Your task to perform on an android device: turn on javascript in the chrome app Image 0: 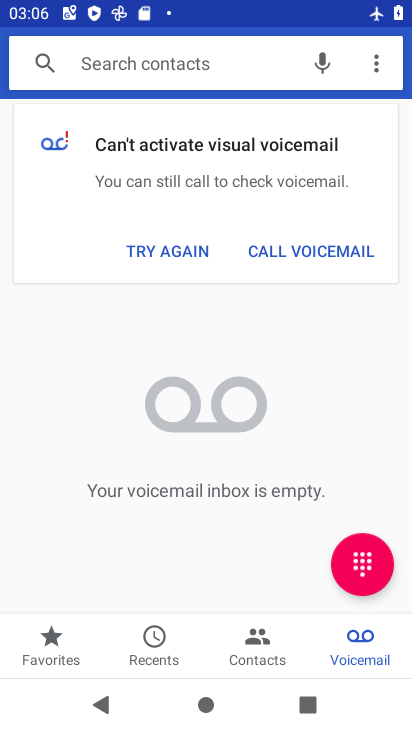
Step 0: drag from (192, 545) to (298, 301)
Your task to perform on an android device: turn on javascript in the chrome app Image 1: 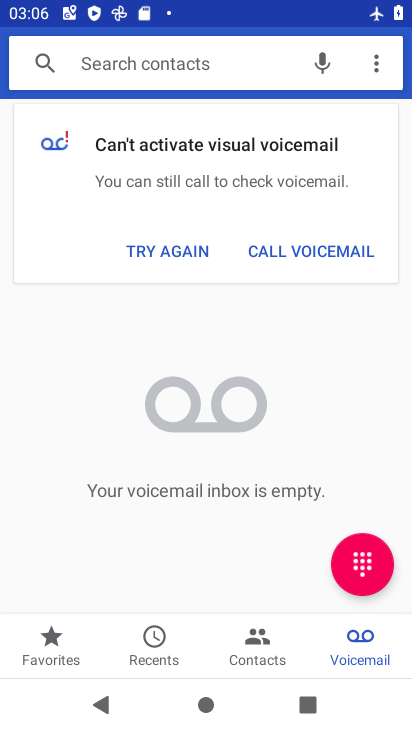
Step 1: press home button
Your task to perform on an android device: turn on javascript in the chrome app Image 2: 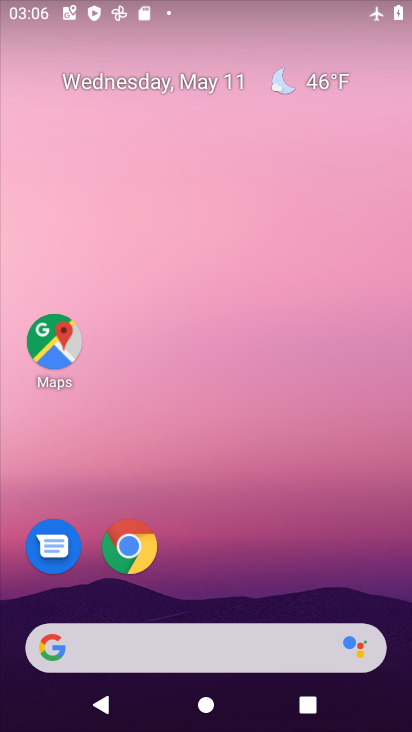
Step 2: drag from (192, 560) to (286, 153)
Your task to perform on an android device: turn on javascript in the chrome app Image 3: 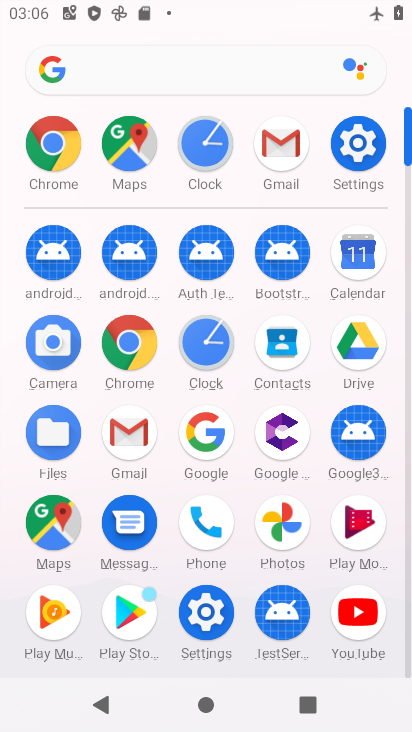
Step 3: click (129, 337)
Your task to perform on an android device: turn on javascript in the chrome app Image 4: 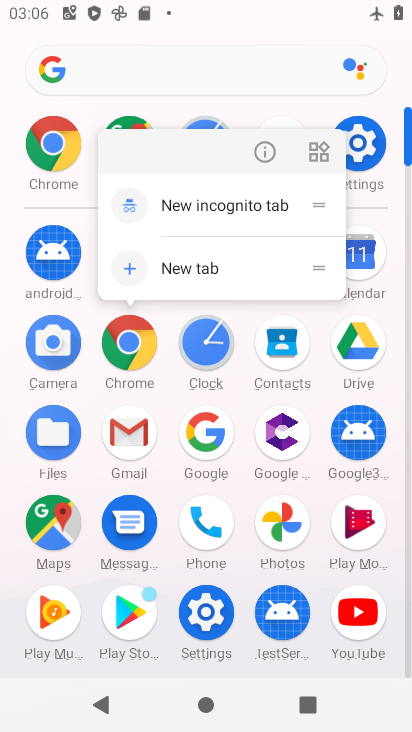
Step 4: click (244, 152)
Your task to perform on an android device: turn on javascript in the chrome app Image 5: 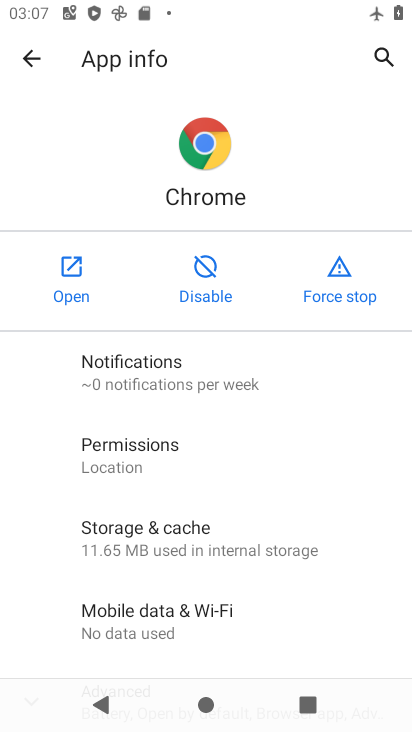
Step 5: click (70, 266)
Your task to perform on an android device: turn on javascript in the chrome app Image 6: 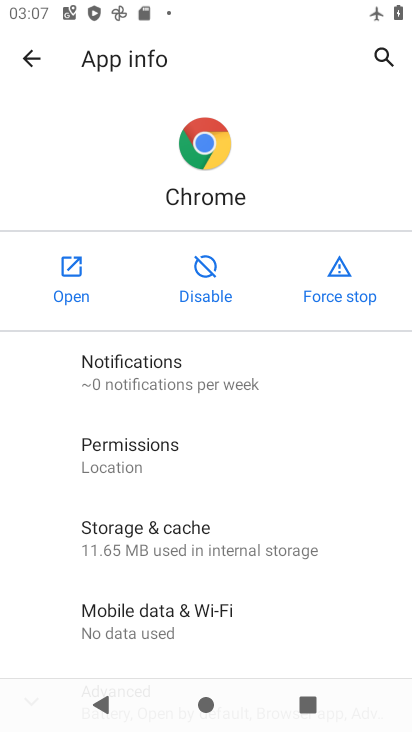
Step 6: click (70, 266)
Your task to perform on an android device: turn on javascript in the chrome app Image 7: 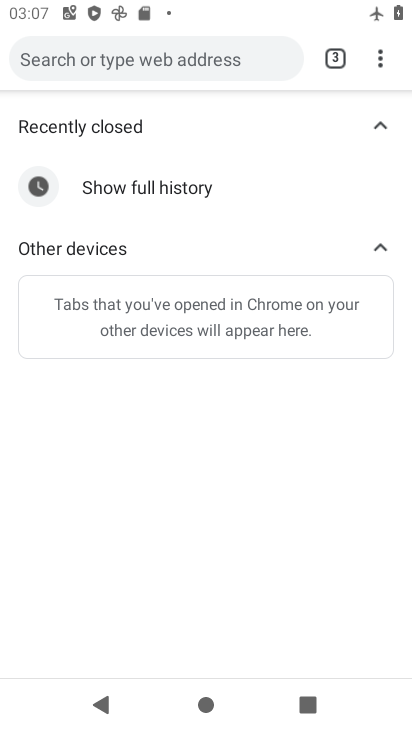
Step 7: drag from (387, 57) to (227, 499)
Your task to perform on an android device: turn on javascript in the chrome app Image 8: 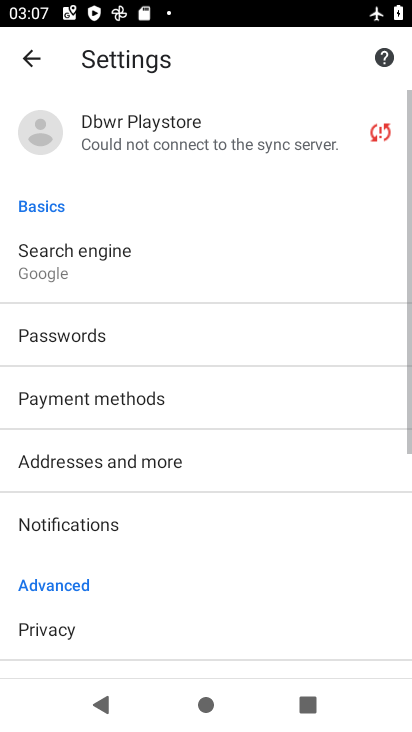
Step 8: drag from (225, 536) to (282, 289)
Your task to perform on an android device: turn on javascript in the chrome app Image 9: 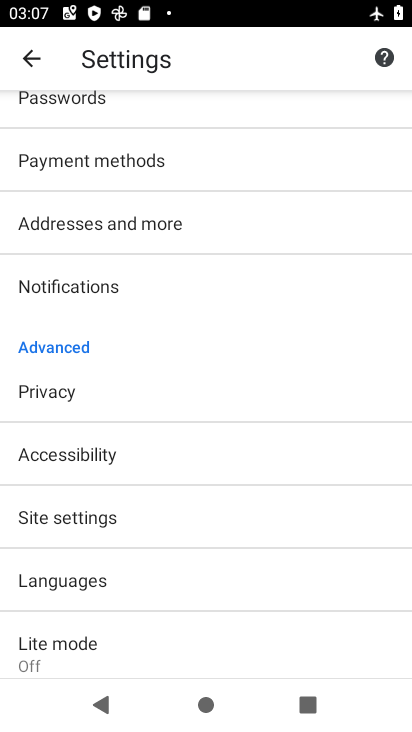
Step 9: click (107, 508)
Your task to perform on an android device: turn on javascript in the chrome app Image 10: 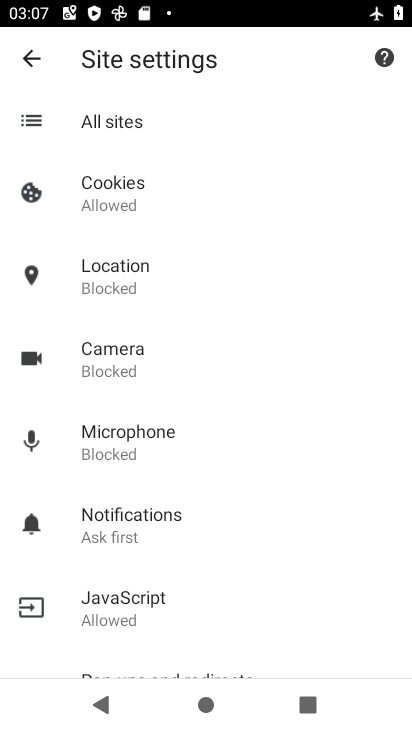
Step 10: click (168, 597)
Your task to perform on an android device: turn on javascript in the chrome app Image 11: 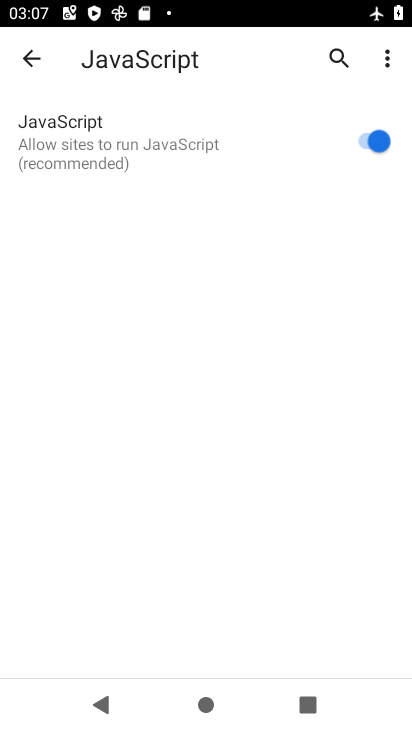
Step 11: task complete